Your task to perform on an android device: turn off wifi Image 0: 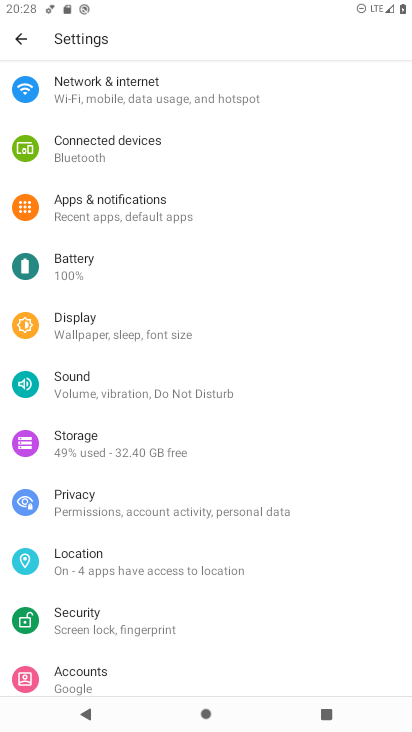
Step 0: click (130, 88)
Your task to perform on an android device: turn off wifi Image 1: 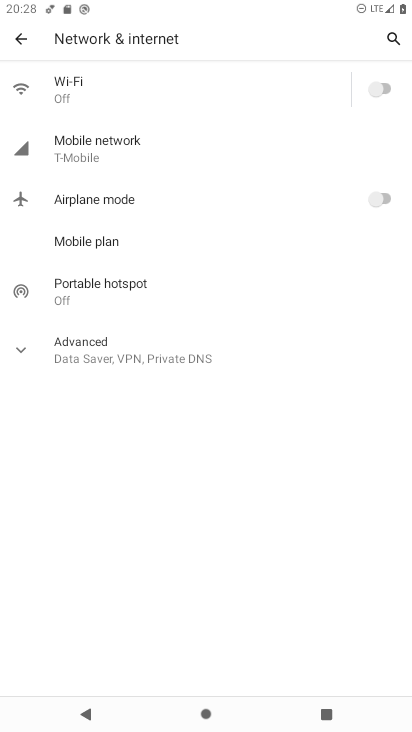
Step 1: task complete